Your task to perform on an android device: Go to display settings Image 0: 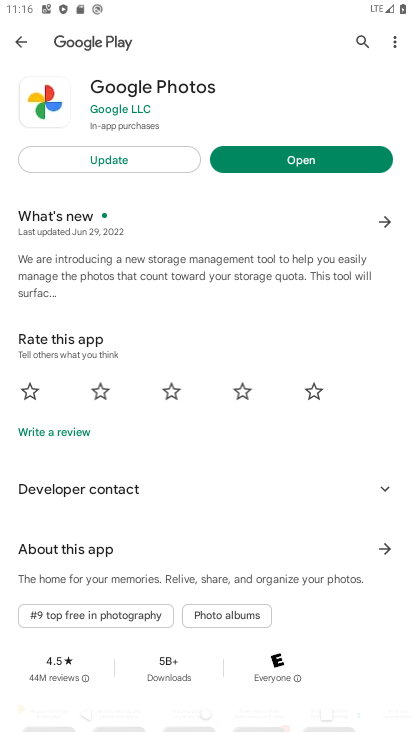
Step 0: press home button
Your task to perform on an android device: Go to display settings Image 1: 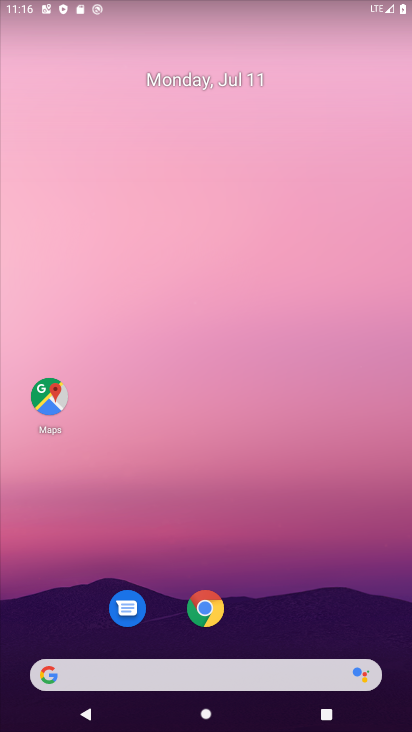
Step 1: drag from (16, 719) to (220, 115)
Your task to perform on an android device: Go to display settings Image 2: 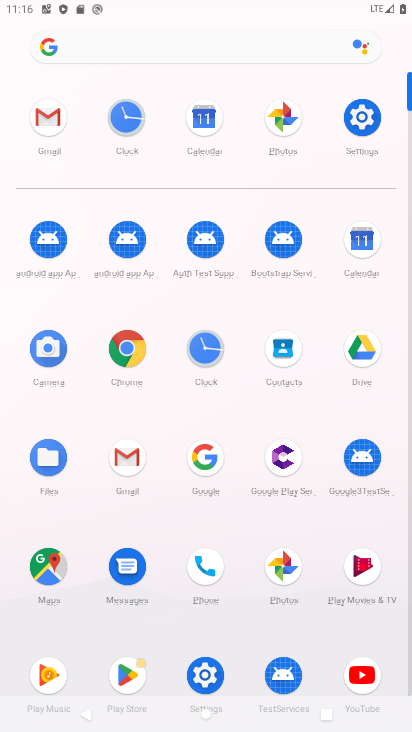
Step 2: click (205, 678)
Your task to perform on an android device: Go to display settings Image 3: 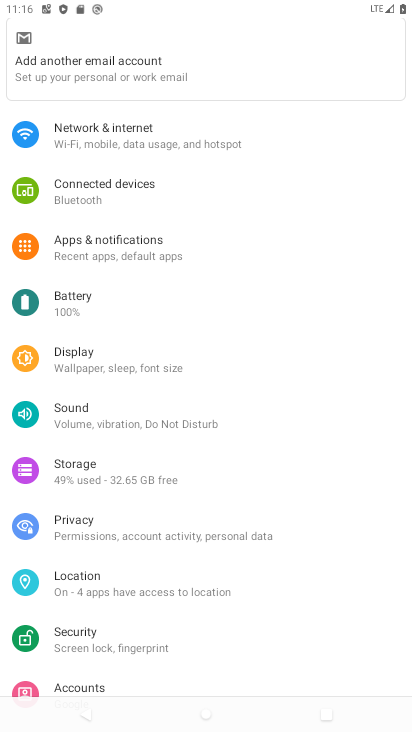
Step 3: click (99, 348)
Your task to perform on an android device: Go to display settings Image 4: 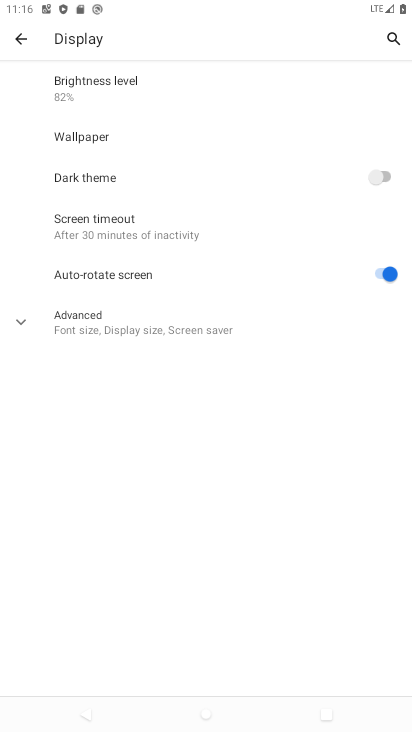
Step 4: task complete